Your task to perform on an android device: Play the last video I watched on Youtube Image 0: 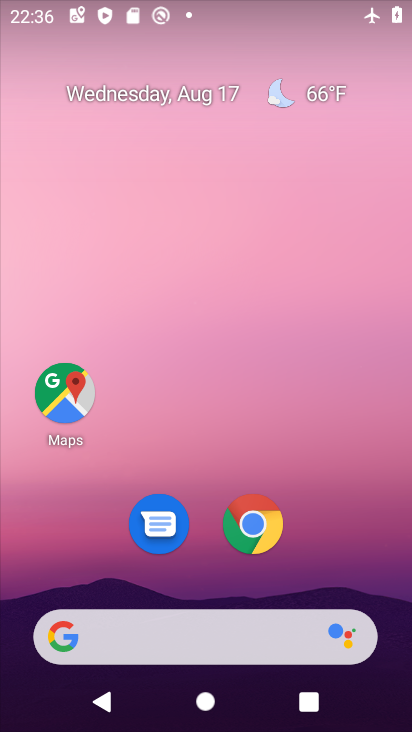
Step 0: drag from (299, 490) to (325, 6)
Your task to perform on an android device: Play the last video I watched on Youtube Image 1: 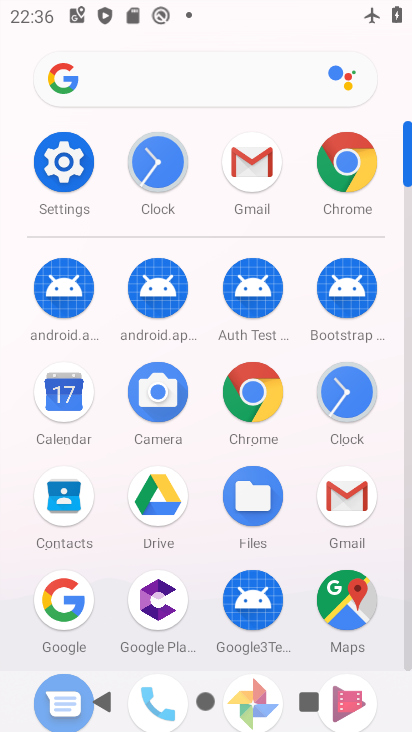
Step 1: drag from (289, 492) to (326, 28)
Your task to perform on an android device: Play the last video I watched on Youtube Image 2: 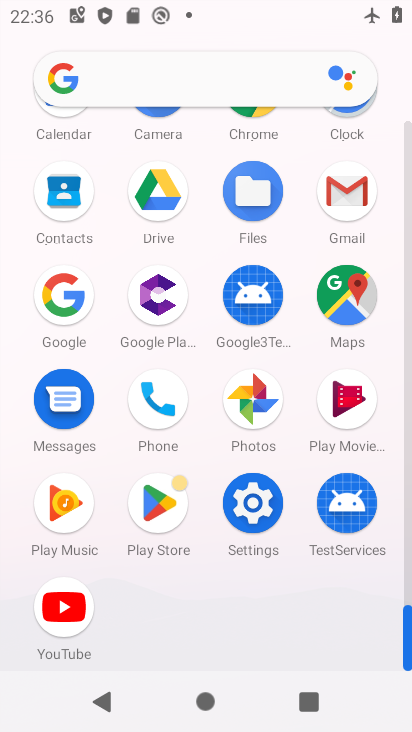
Step 2: click (73, 607)
Your task to perform on an android device: Play the last video I watched on Youtube Image 3: 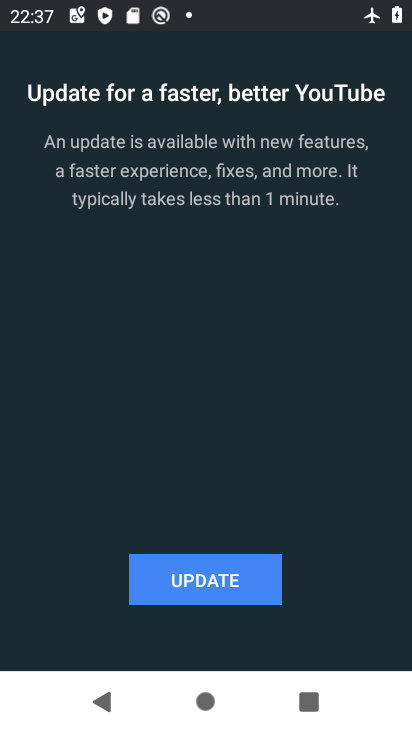
Step 3: click (272, 580)
Your task to perform on an android device: Play the last video I watched on Youtube Image 4: 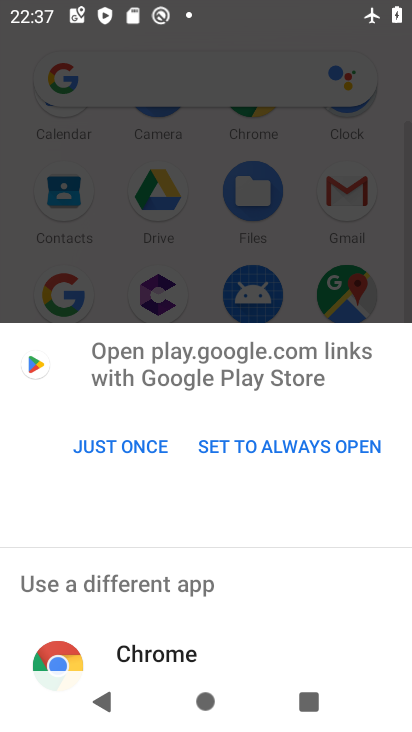
Step 4: click (148, 437)
Your task to perform on an android device: Play the last video I watched on Youtube Image 5: 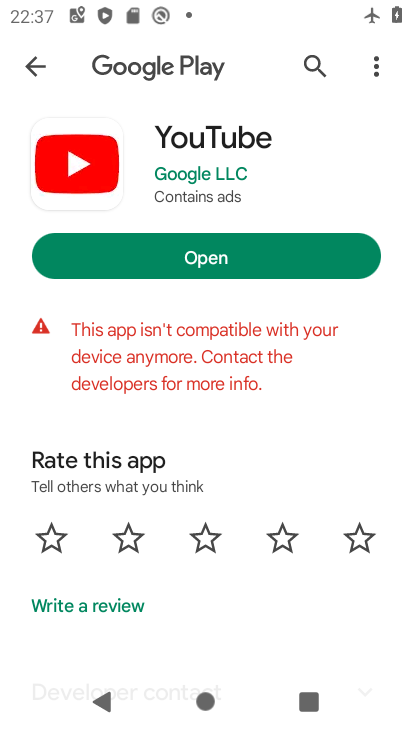
Step 5: click (322, 251)
Your task to perform on an android device: Play the last video I watched on Youtube Image 6: 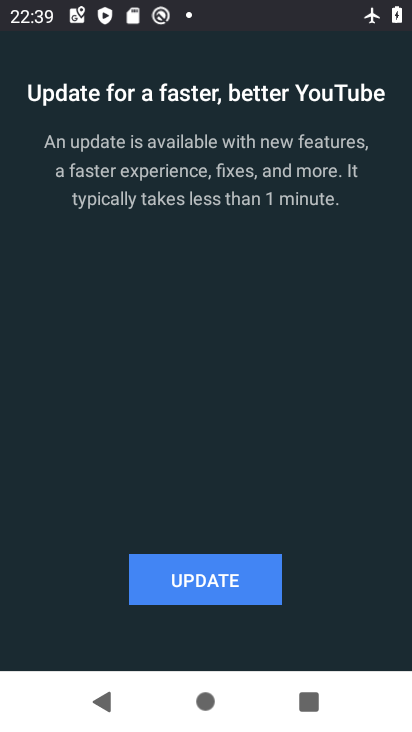
Step 6: task complete